Your task to perform on an android device: Open battery settings Image 0: 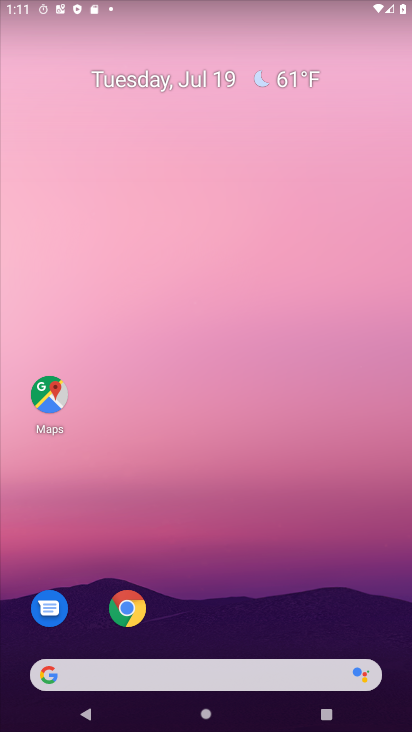
Step 0: drag from (279, 519) to (255, 15)
Your task to perform on an android device: Open battery settings Image 1: 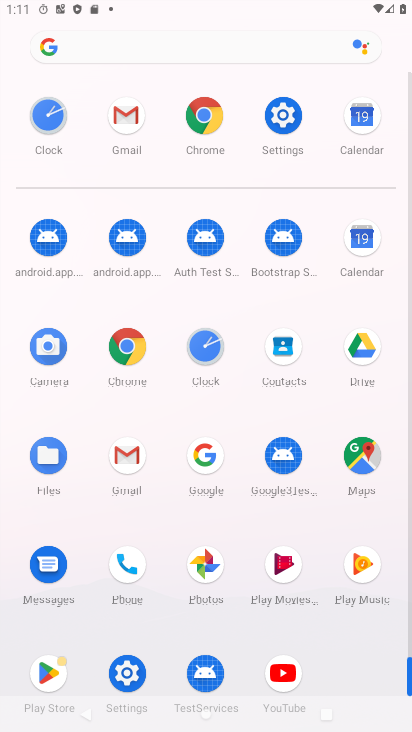
Step 1: click (272, 116)
Your task to perform on an android device: Open battery settings Image 2: 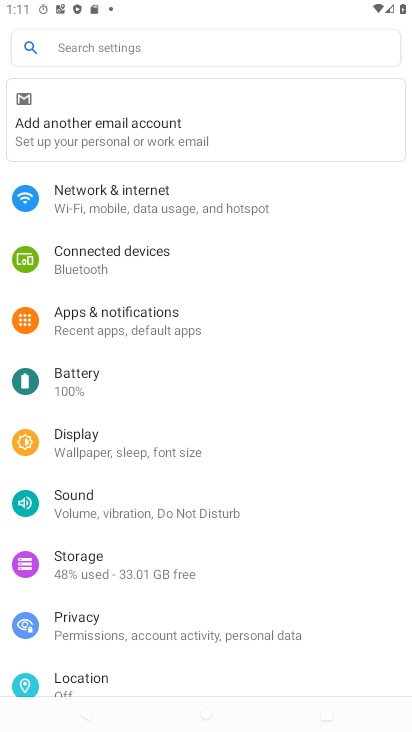
Step 2: click (64, 393)
Your task to perform on an android device: Open battery settings Image 3: 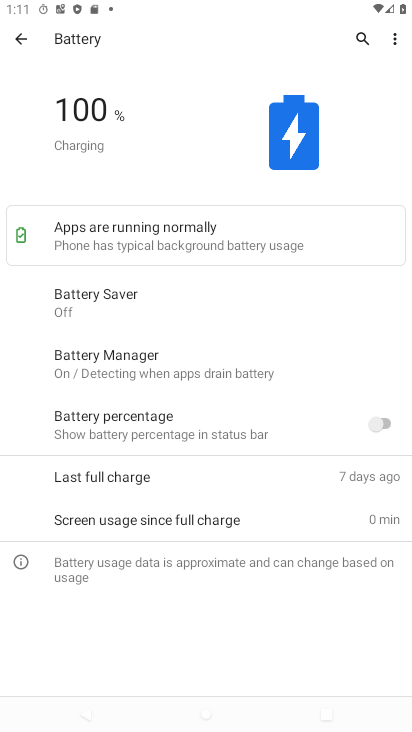
Step 3: task complete